Your task to perform on an android device: turn on translation in the chrome app Image 0: 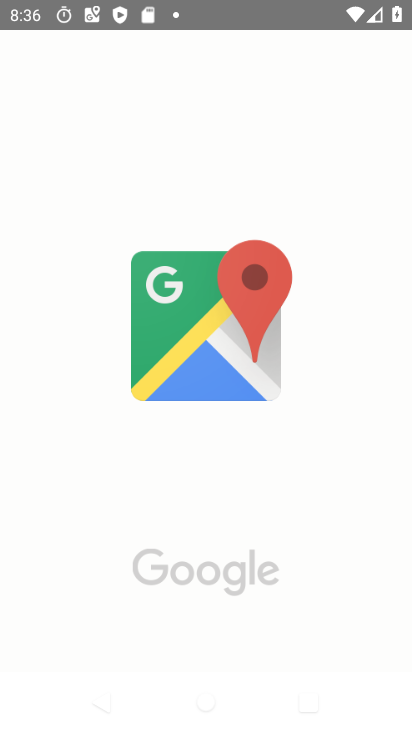
Step 0: drag from (222, 641) to (221, 225)
Your task to perform on an android device: turn on translation in the chrome app Image 1: 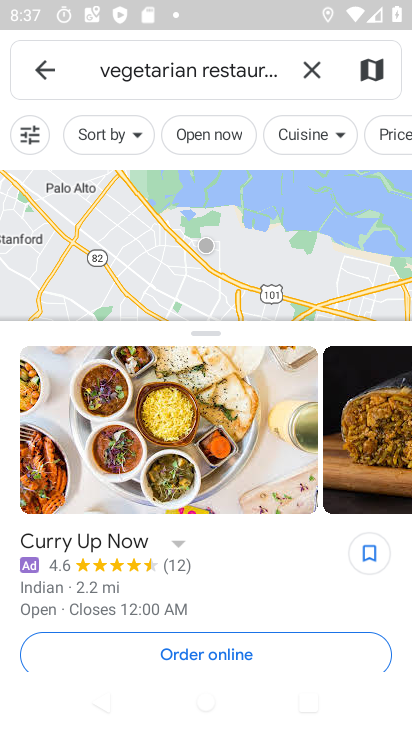
Step 1: press home button
Your task to perform on an android device: turn on translation in the chrome app Image 2: 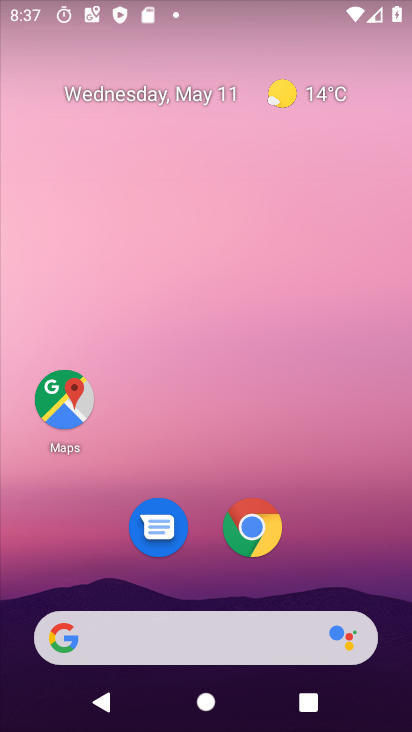
Step 2: drag from (176, 631) to (233, 283)
Your task to perform on an android device: turn on translation in the chrome app Image 3: 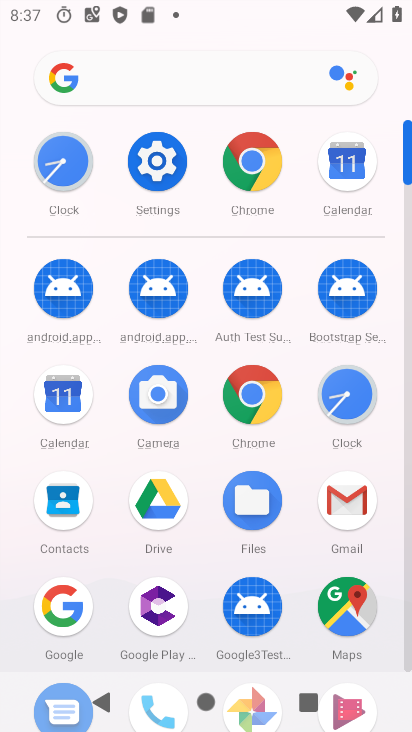
Step 3: click (260, 183)
Your task to perform on an android device: turn on translation in the chrome app Image 4: 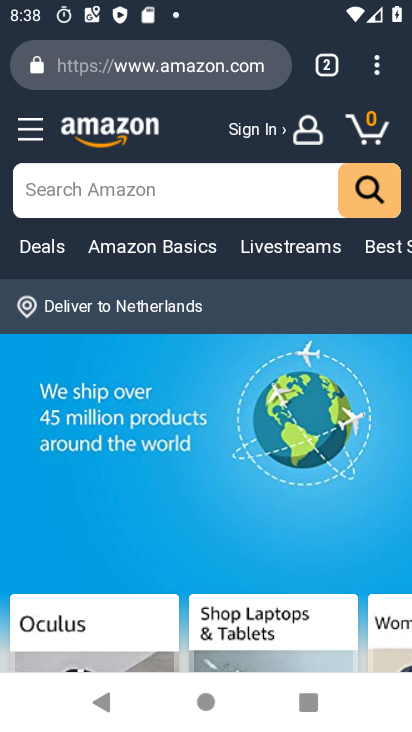
Step 4: click (384, 83)
Your task to perform on an android device: turn on translation in the chrome app Image 5: 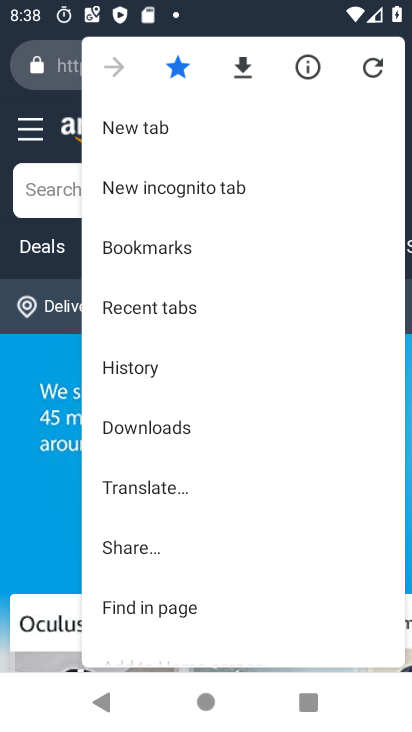
Step 5: click (173, 489)
Your task to perform on an android device: turn on translation in the chrome app Image 6: 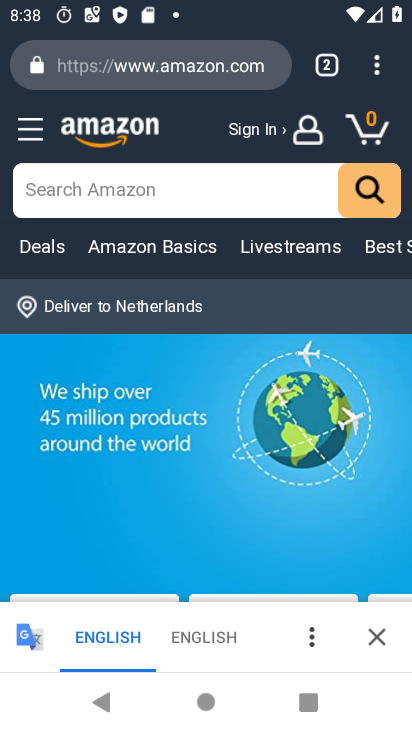
Step 6: click (327, 634)
Your task to perform on an android device: turn on translation in the chrome app Image 7: 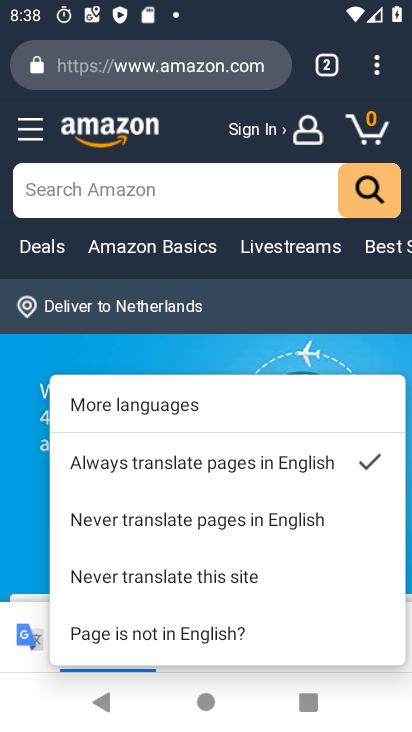
Step 7: task complete